Your task to perform on an android device: turn on priority inbox in the gmail app Image 0: 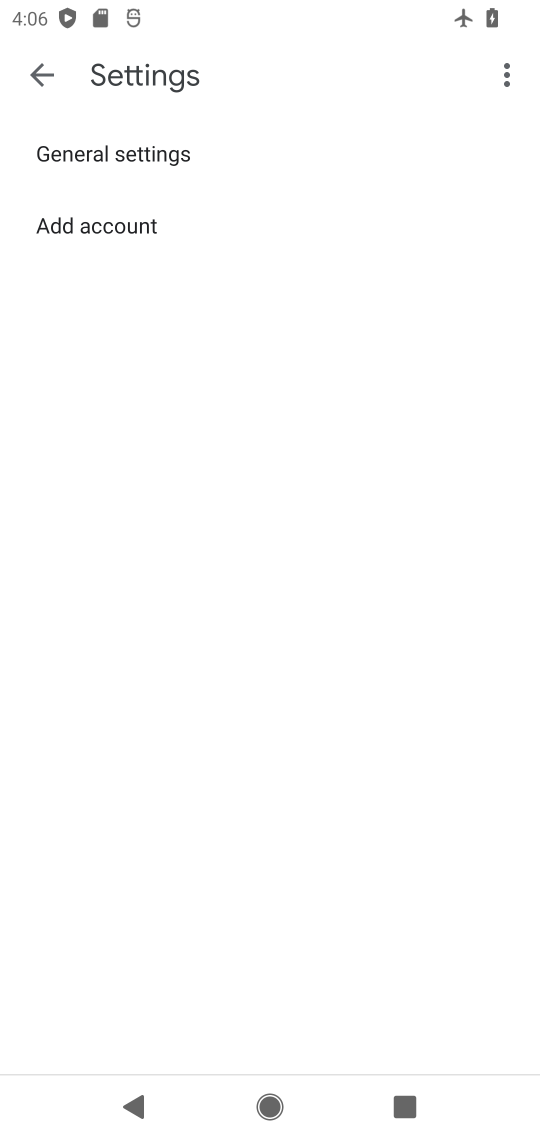
Step 0: press home button
Your task to perform on an android device: turn on priority inbox in the gmail app Image 1: 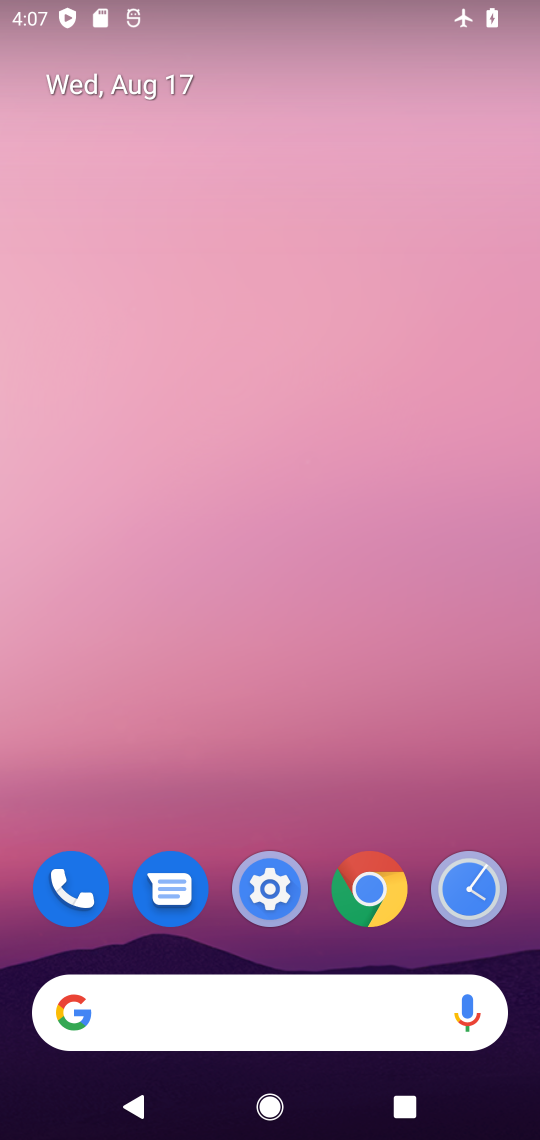
Step 1: drag from (258, 820) to (158, 198)
Your task to perform on an android device: turn on priority inbox in the gmail app Image 2: 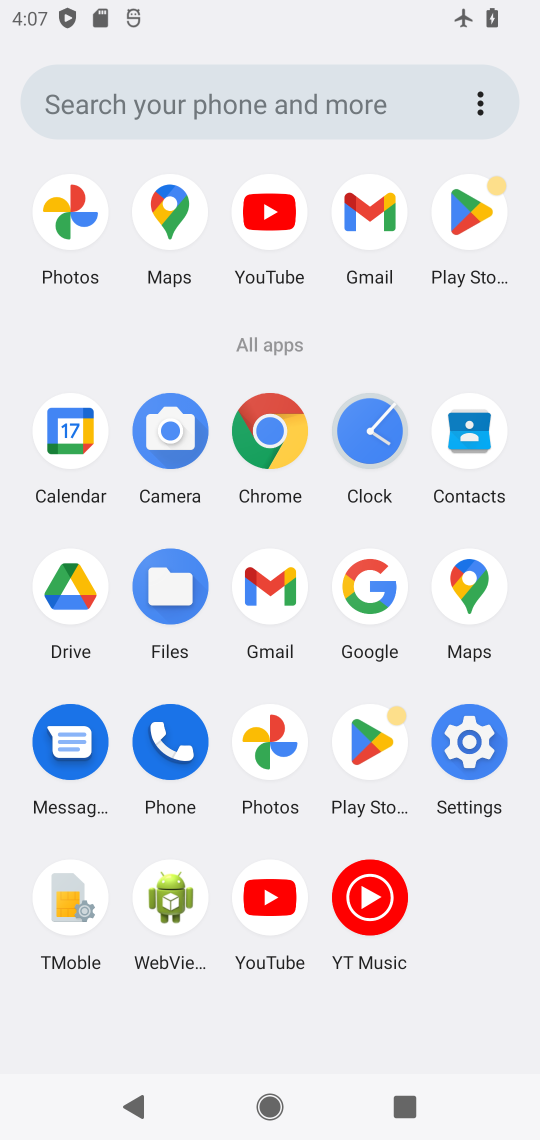
Step 2: click (376, 212)
Your task to perform on an android device: turn on priority inbox in the gmail app Image 3: 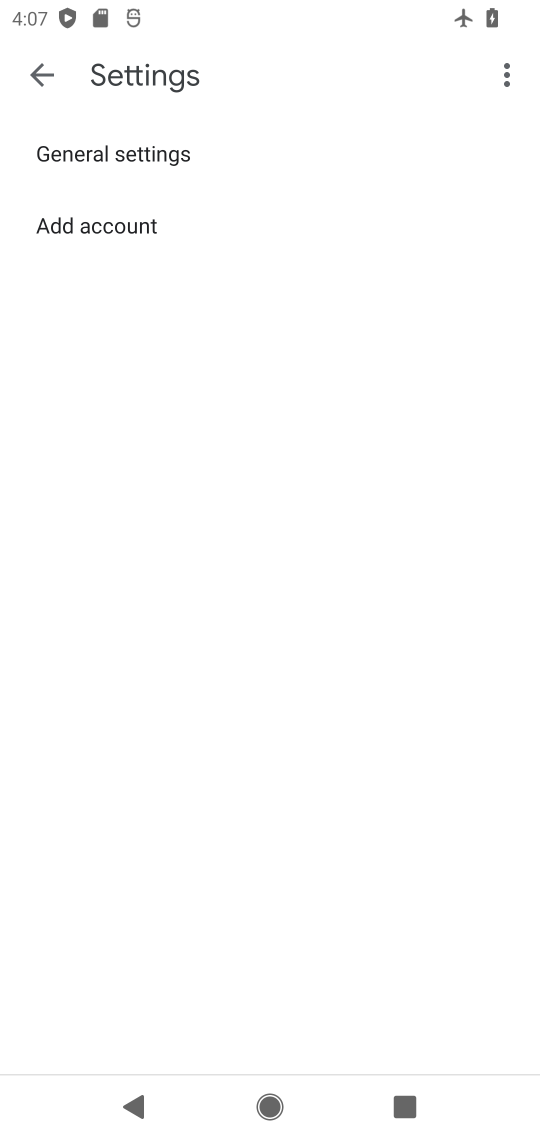
Step 3: click (97, 147)
Your task to perform on an android device: turn on priority inbox in the gmail app Image 4: 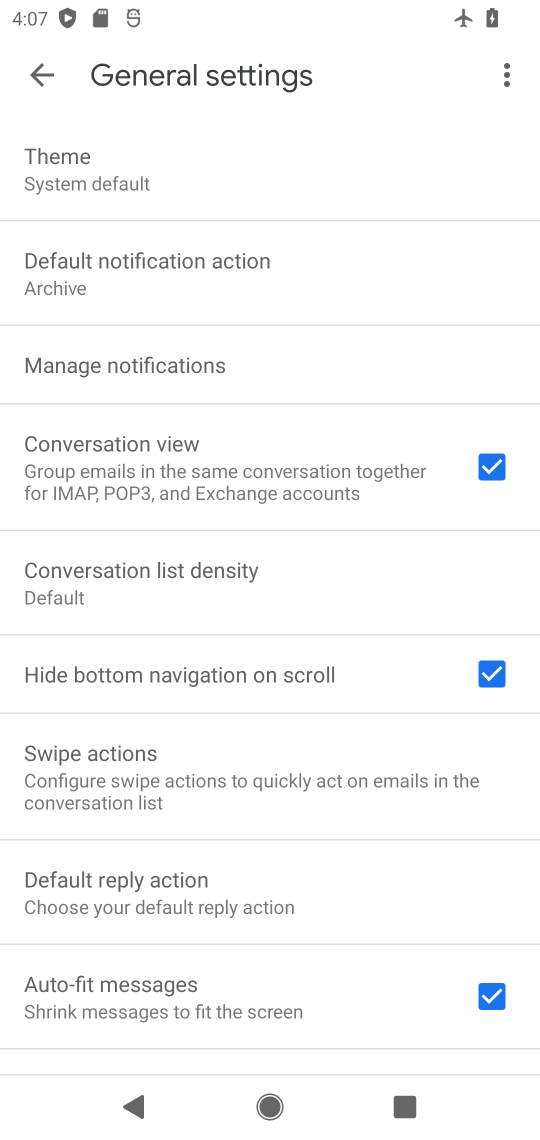
Step 4: click (45, 80)
Your task to perform on an android device: turn on priority inbox in the gmail app Image 5: 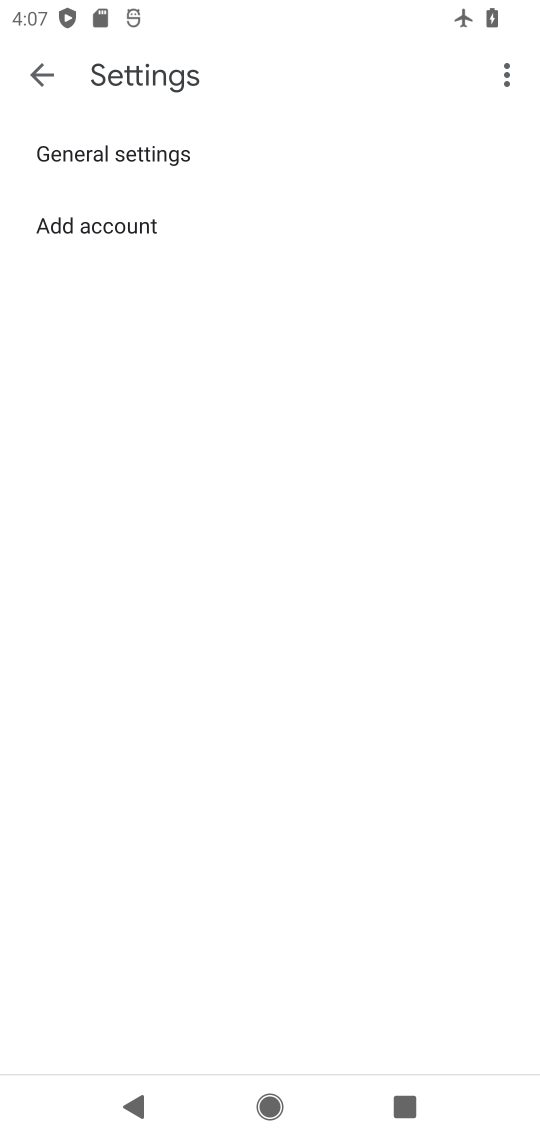
Step 5: click (45, 80)
Your task to perform on an android device: turn on priority inbox in the gmail app Image 6: 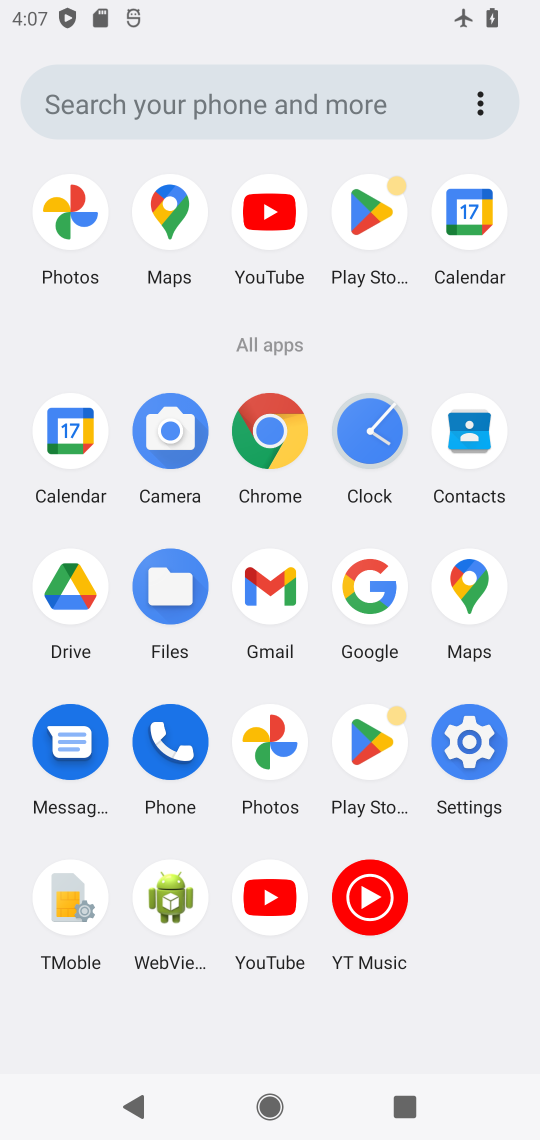
Step 6: click (268, 590)
Your task to perform on an android device: turn on priority inbox in the gmail app Image 7: 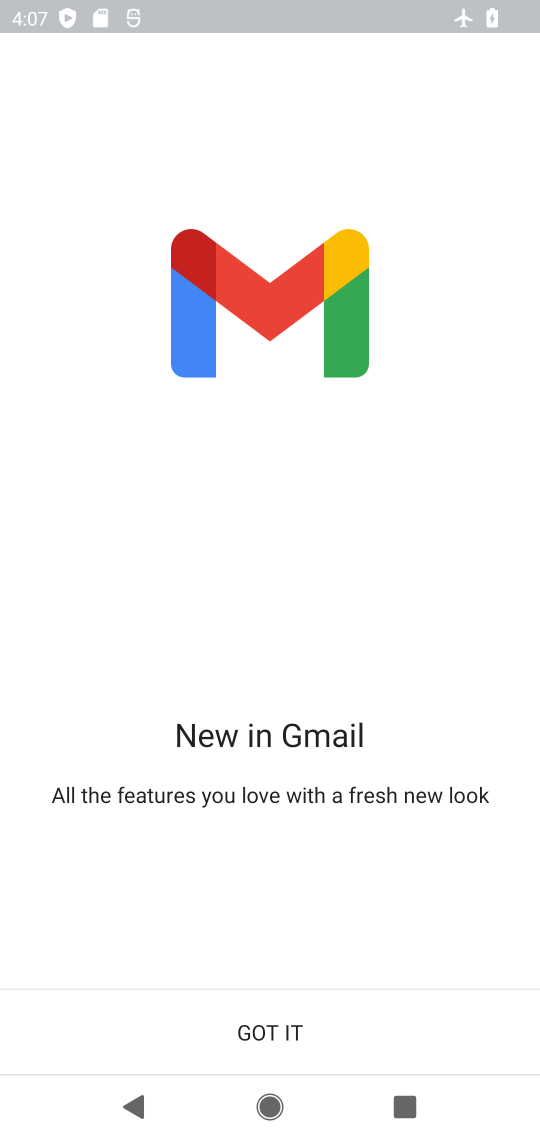
Step 7: click (278, 1025)
Your task to perform on an android device: turn on priority inbox in the gmail app Image 8: 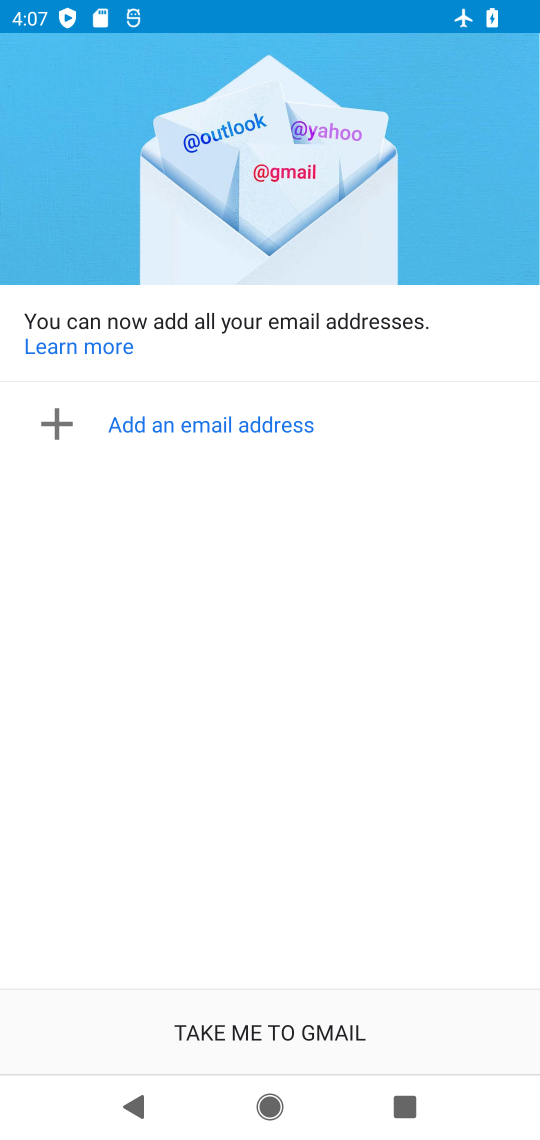
Step 8: click (278, 1025)
Your task to perform on an android device: turn on priority inbox in the gmail app Image 9: 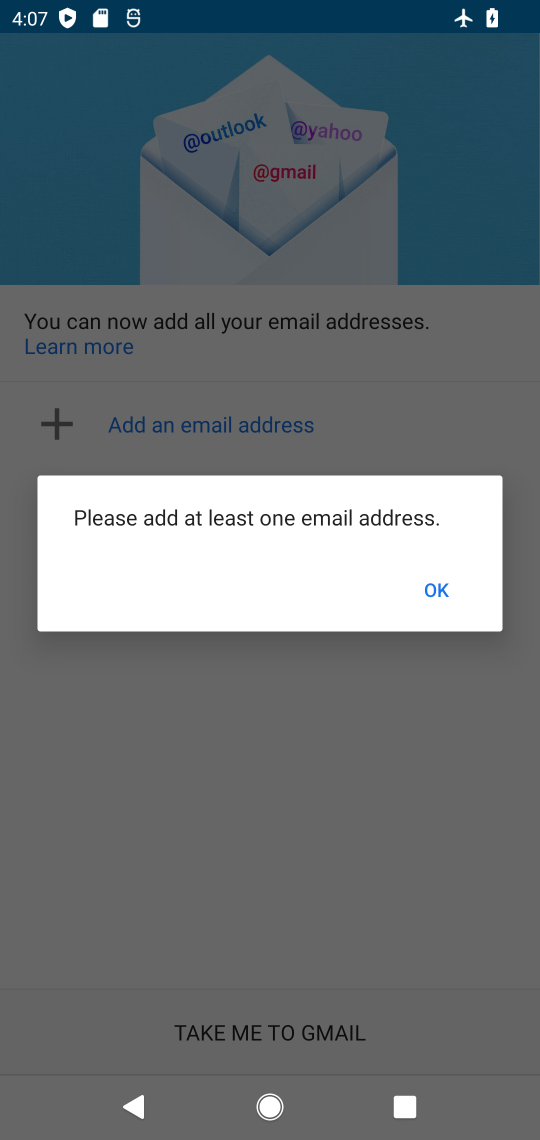
Step 9: click (426, 584)
Your task to perform on an android device: turn on priority inbox in the gmail app Image 10: 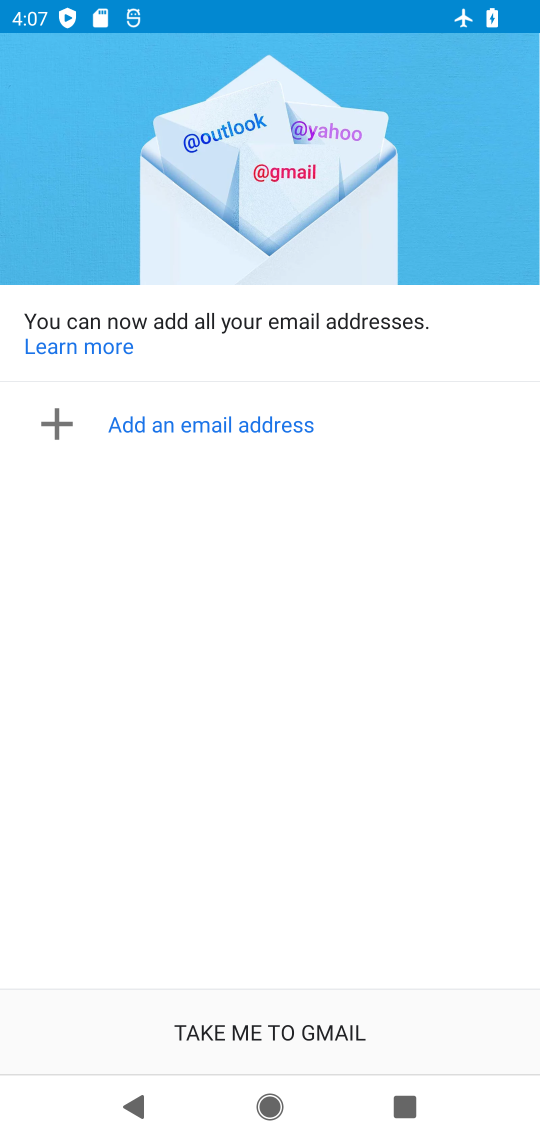
Step 10: task complete